Your task to perform on an android device: delete the emails in spam in the gmail app Image 0: 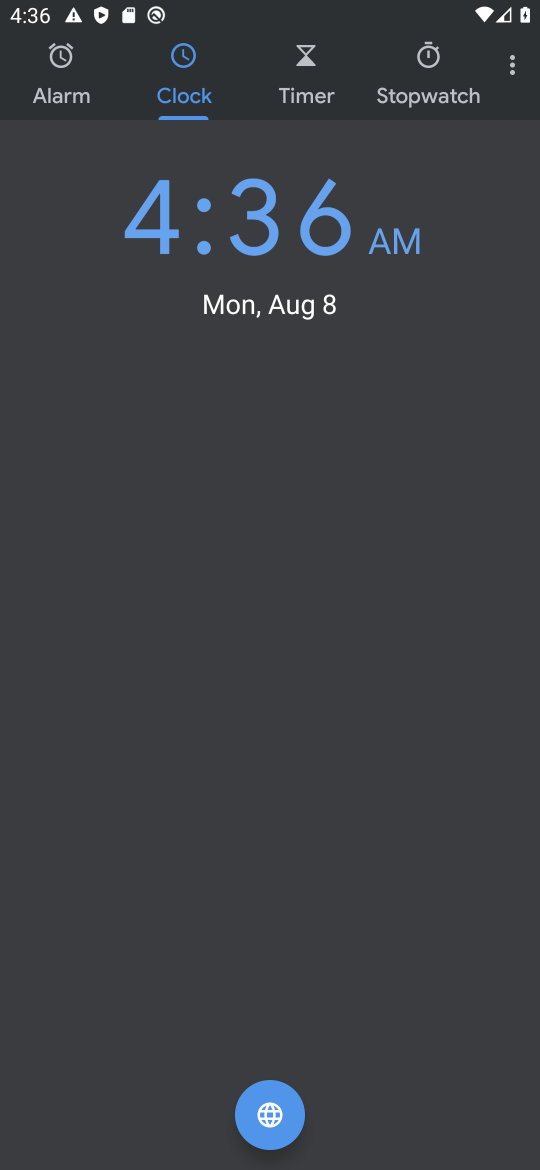
Step 0: press home button
Your task to perform on an android device: delete the emails in spam in the gmail app Image 1: 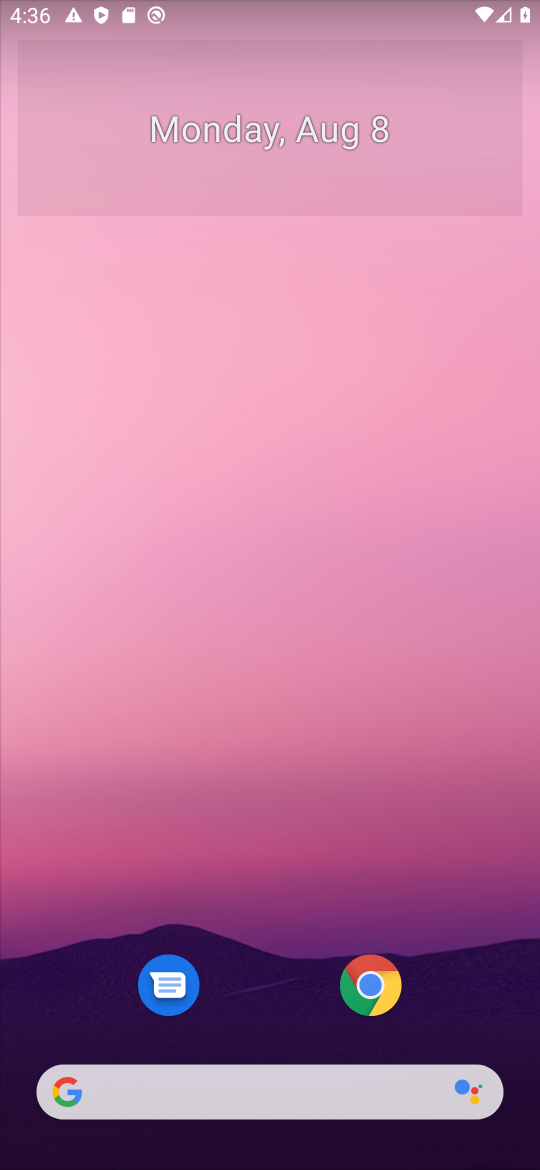
Step 1: drag from (279, 878) to (362, 76)
Your task to perform on an android device: delete the emails in spam in the gmail app Image 2: 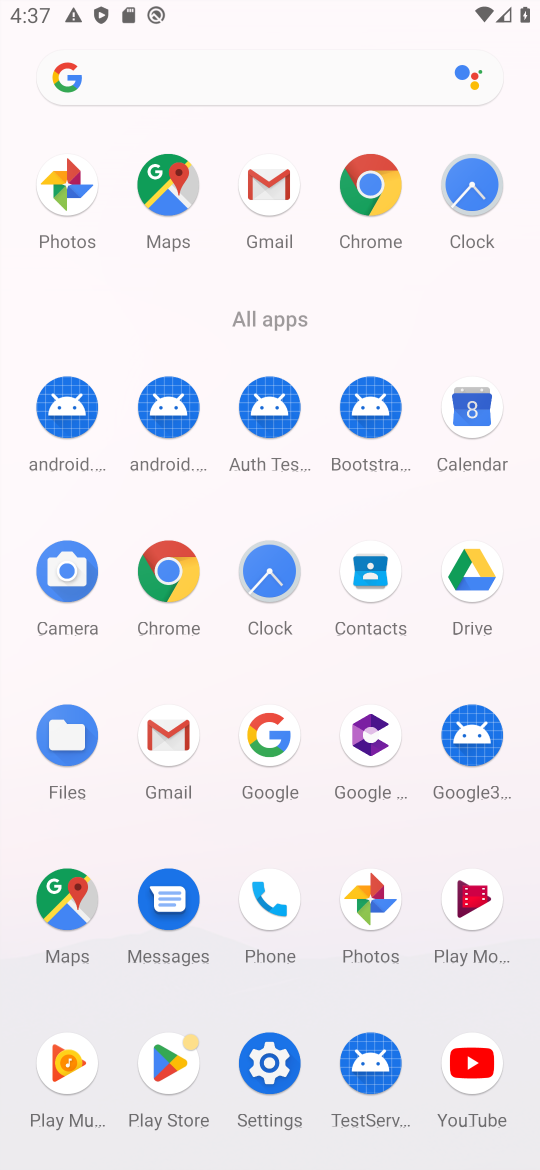
Step 2: click (164, 736)
Your task to perform on an android device: delete the emails in spam in the gmail app Image 3: 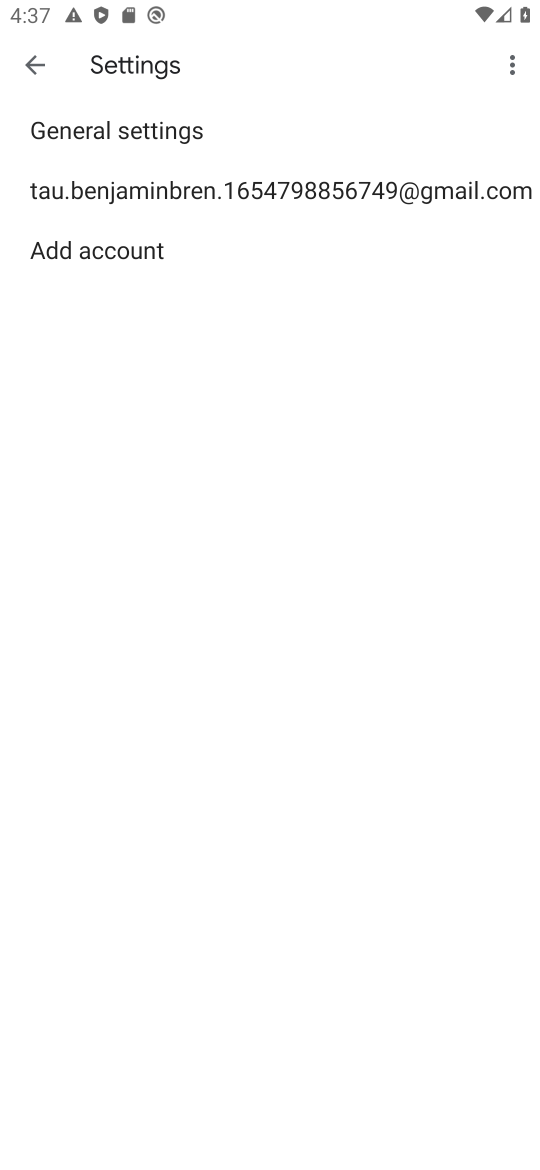
Step 3: task complete